Your task to perform on an android device: toggle pop-ups in chrome Image 0: 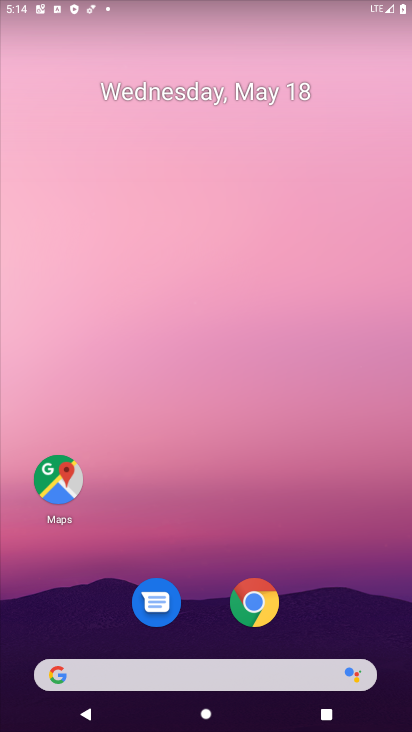
Step 0: drag from (253, 671) to (249, 49)
Your task to perform on an android device: toggle pop-ups in chrome Image 1: 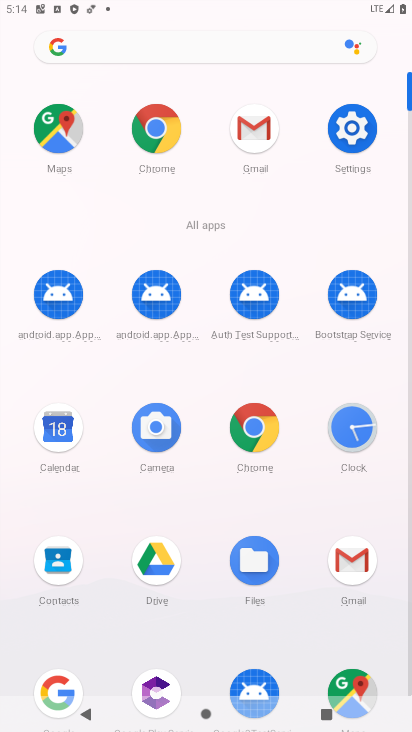
Step 1: click (249, 432)
Your task to perform on an android device: toggle pop-ups in chrome Image 2: 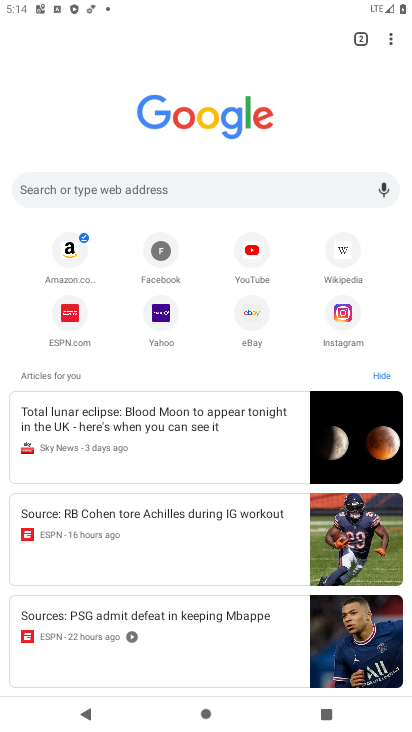
Step 2: click (387, 42)
Your task to perform on an android device: toggle pop-ups in chrome Image 3: 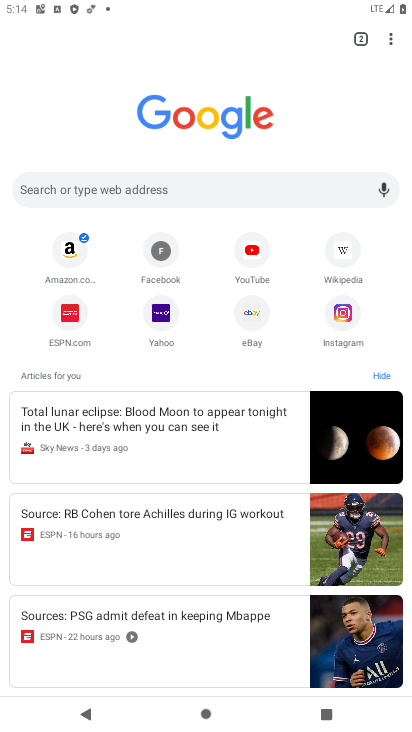
Step 3: drag from (393, 39) to (268, 327)
Your task to perform on an android device: toggle pop-ups in chrome Image 4: 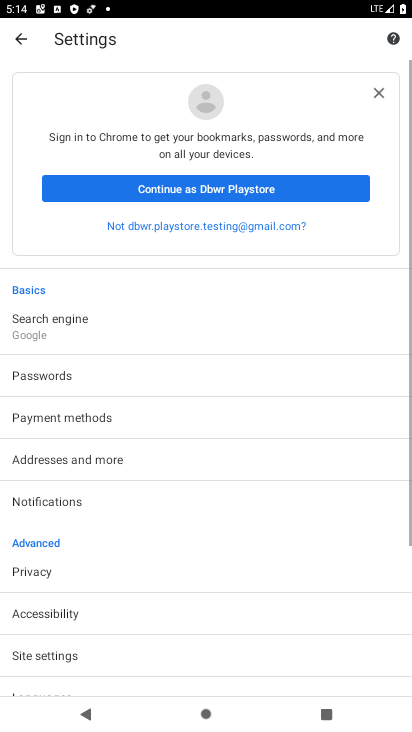
Step 4: drag from (143, 627) to (104, 244)
Your task to perform on an android device: toggle pop-ups in chrome Image 5: 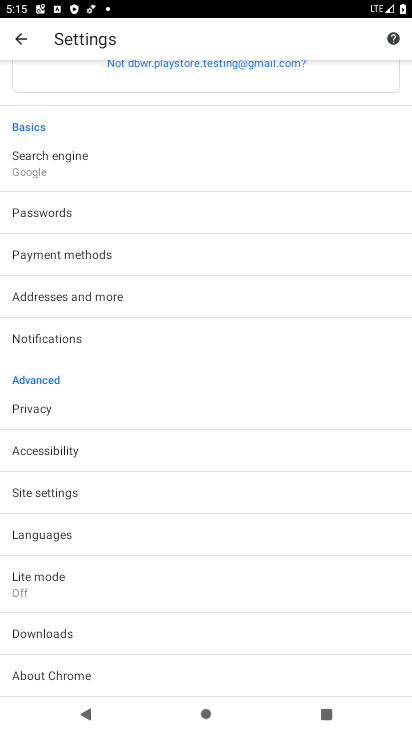
Step 5: click (65, 500)
Your task to perform on an android device: toggle pop-ups in chrome Image 6: 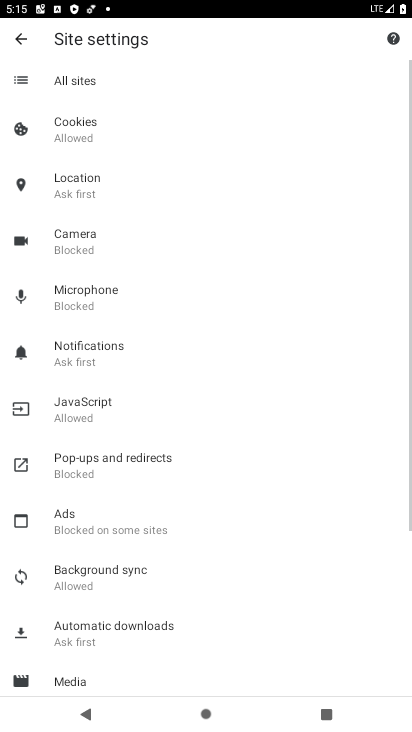
Step 6: click (141, 471)
Your task to perform on an android device: toggle pop-ups in chrome Image 7: 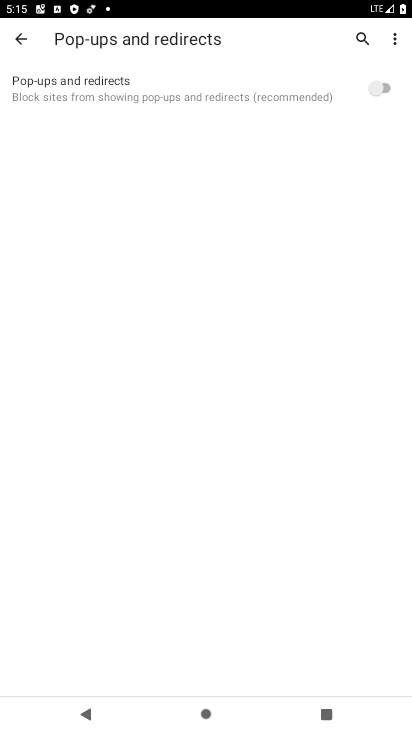
Step 7: click (378, 93)
Your task to perform on an android device: toggle pop-ups in chrome Image 8: 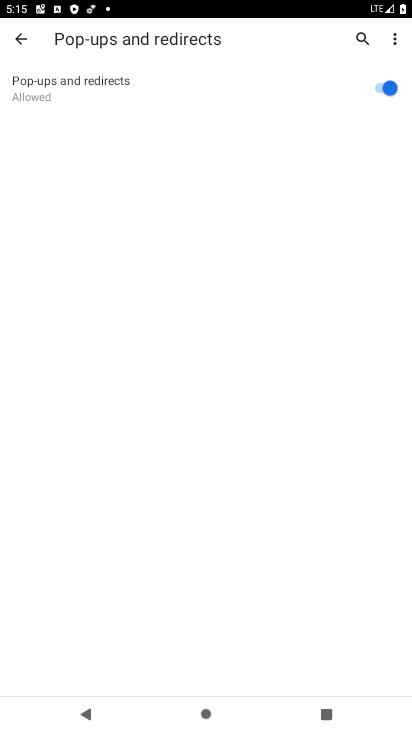
Step 8: task complete